Your task to perform on an android device: When is my next appointment? Image 0: 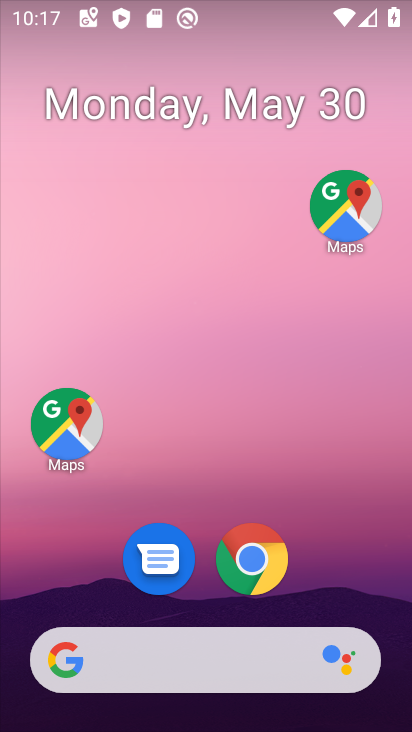
Step 0: drag from (325, 553) to (320, 28)
Your task to perform on an android device: When is my next appointment? Image 1: 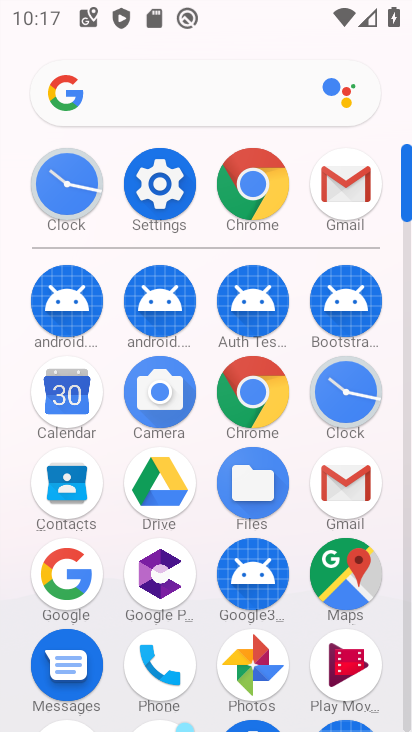
Step 1: click (72, 382)
Your task to perform on an android device: When is my next appointment? Image 2: 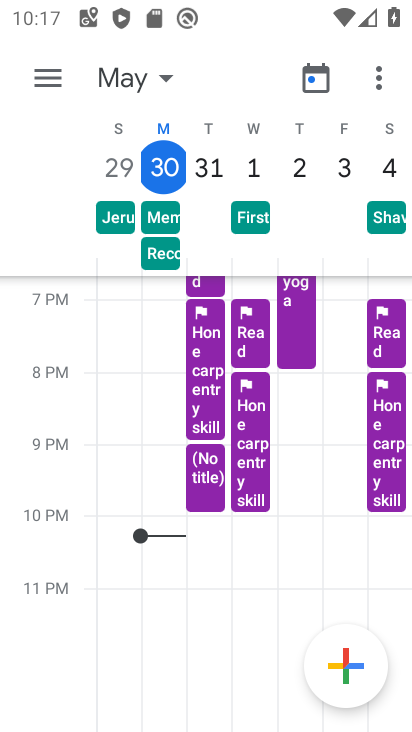
Step 2: task complete